Your task to perform on an android device: Open Yahoo.com Image 0: 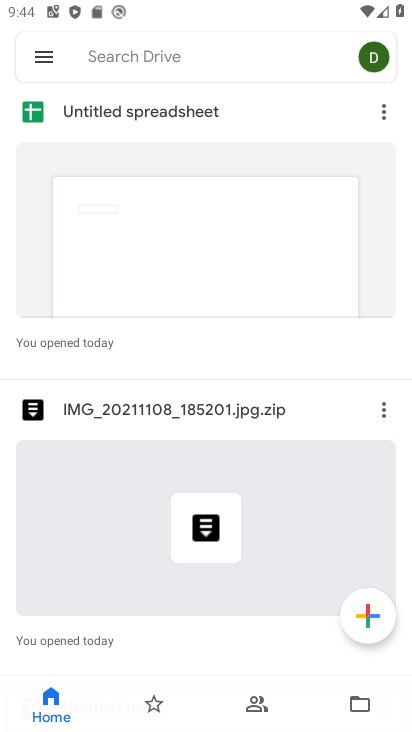
Step 0: press home button
Your task to perform on an android device: Open Yahoo.com Image 1: 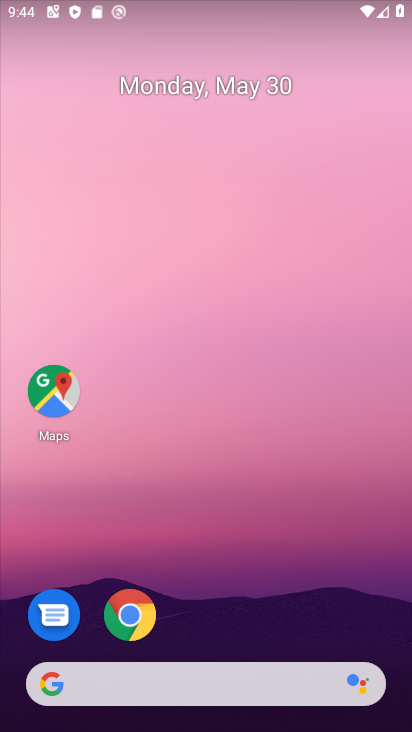
Step 1: drag from (272, 589) to (201, 731)
Your task to perform on an android device: Open Yahoo.com Image 2: 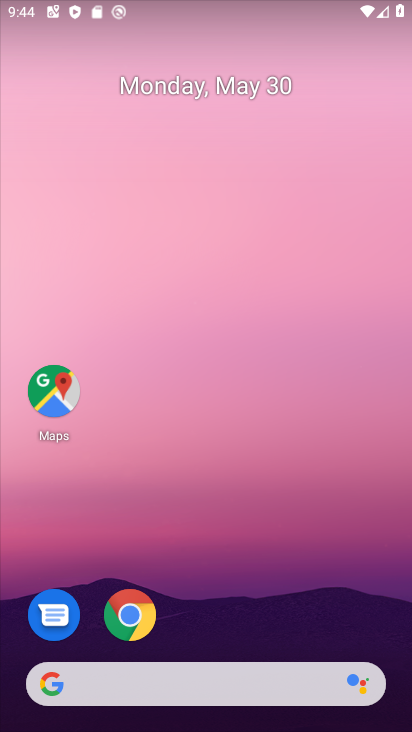
Step 2: click (134, 623)
Your task to perform on an android device: Open Yahoo.com Image 3: 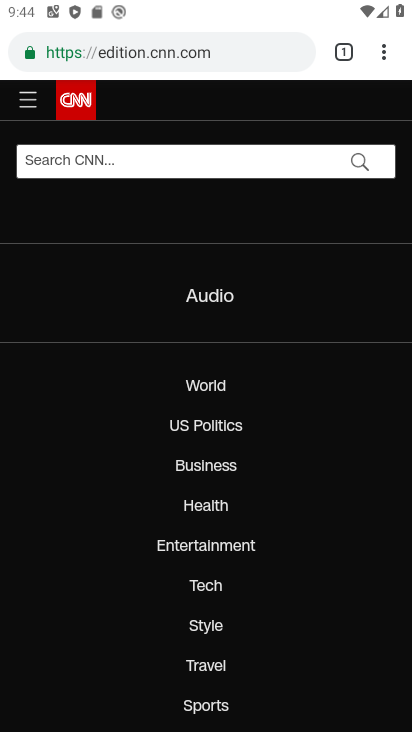
Step 3: click (340, 40)
Your task to perform on an android device: Open Yahoo.com Image 4: 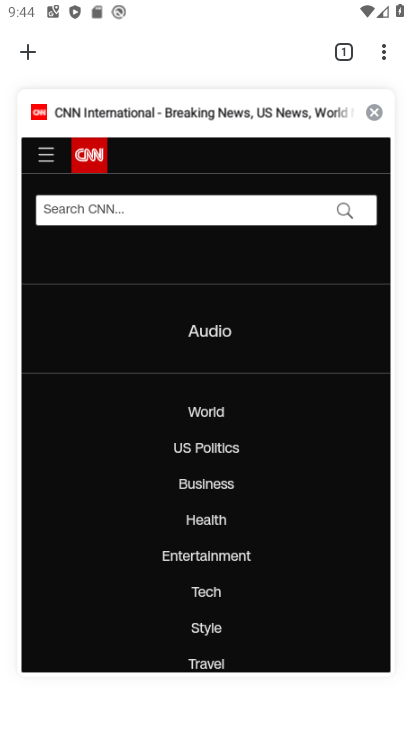
Step 4: click (24, 52)
Your task to perform on an android device: Open Yahoo.com Image 5: 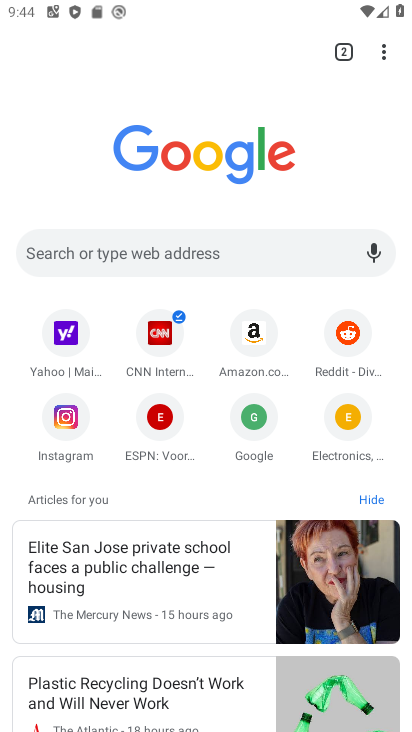
Step 5: click (66, 335)
Your task to perform on an android device: Open Yahoo.com Image 6: 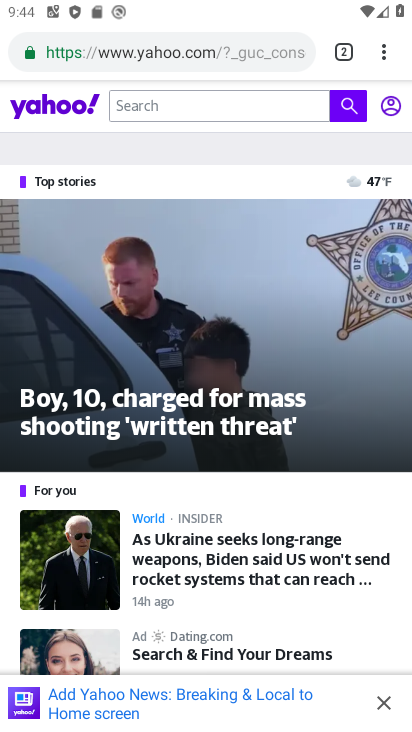
Step 6: task complete